Your task to perform on an android device: refresh tabs in the chrome app Image 0: 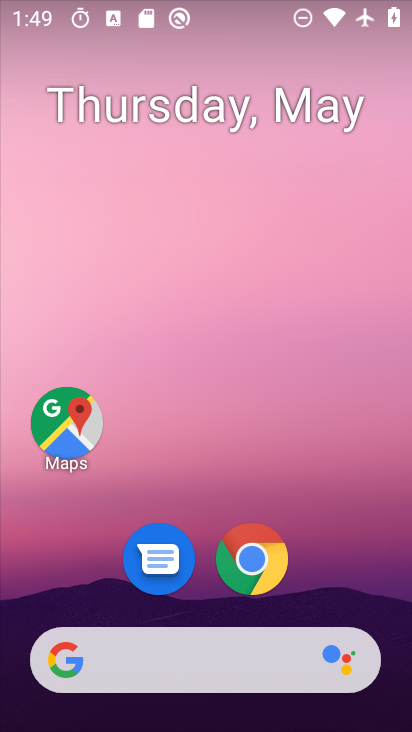
Step 0: drag from (246, 652) to (308, 174)
Your task to perform on an android device: refresh tabs in the chrome app Image 1: 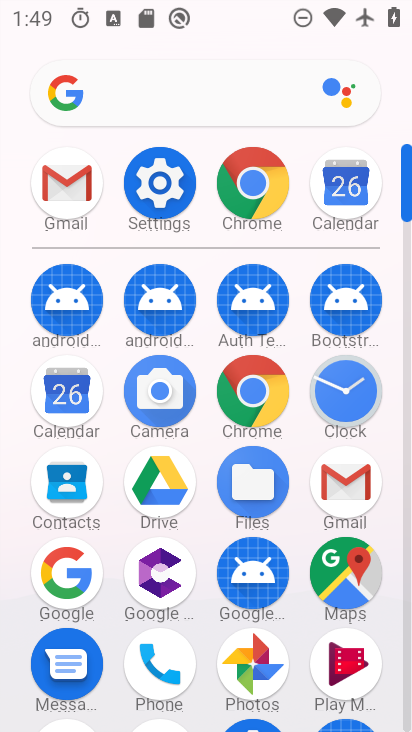
Step 1: drag from (268, 667) to (321, 249)
Your task to perform on an android device: refresh tabs in the chrome app Image 2: 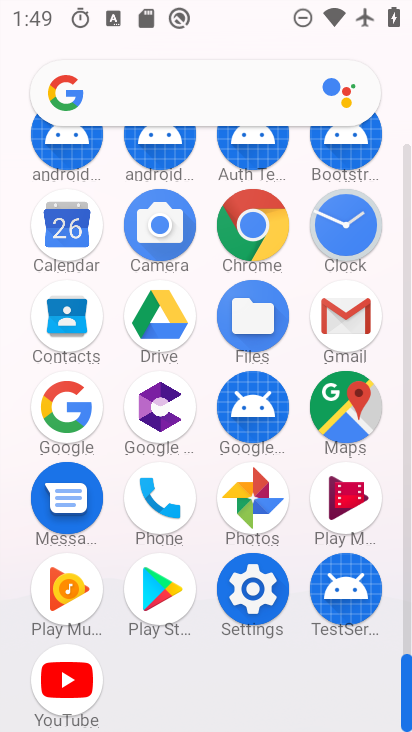
Step 2: click (251, 237)
Your task to perform on an android device: refresh tabs in the chrome app Image 3: 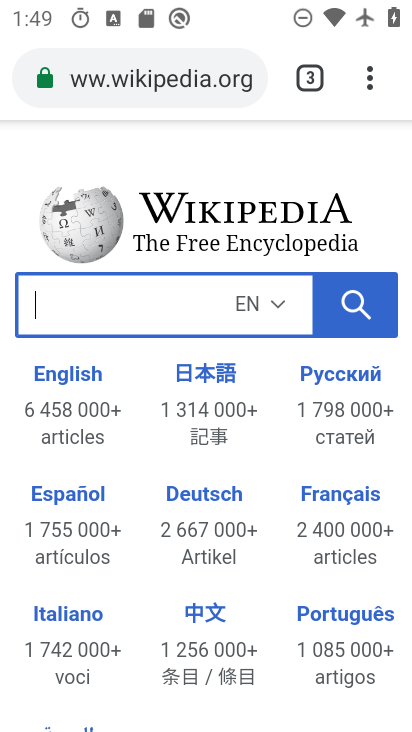
Step 3: click (370, 90)
Your task to perform on an android device: refresh tabs in the chrome app Image 4: 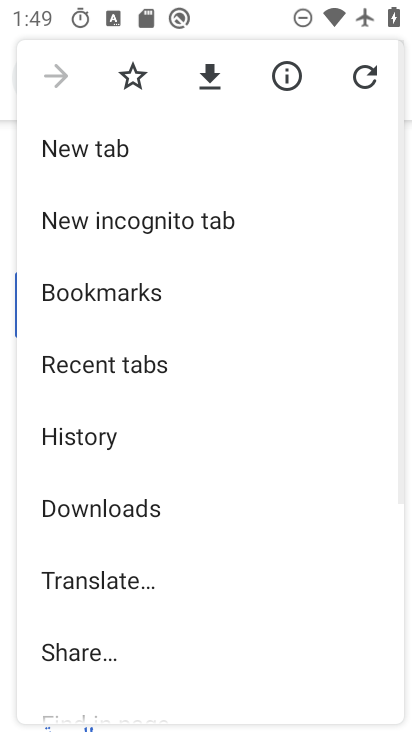
Step 4: drag from (209, 565) to (243, 363)
Your task to perform on an android device: refresh tabs in the chrome app Image 5: 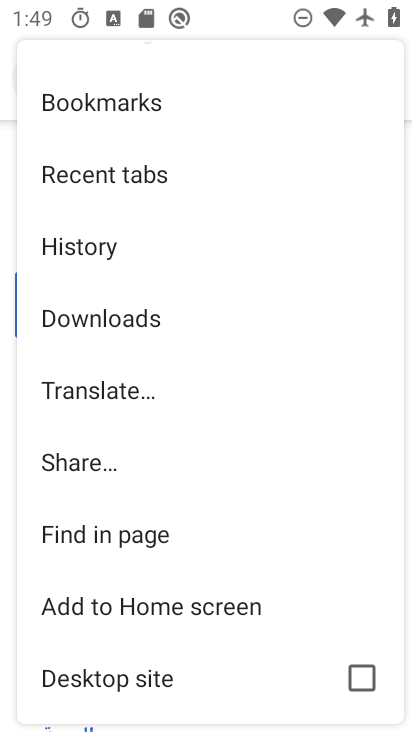
Step 5: drag from (338, 166) to (272, 689)
Your task to perform on an android device: refresh tabs in the chrome app Image 6: 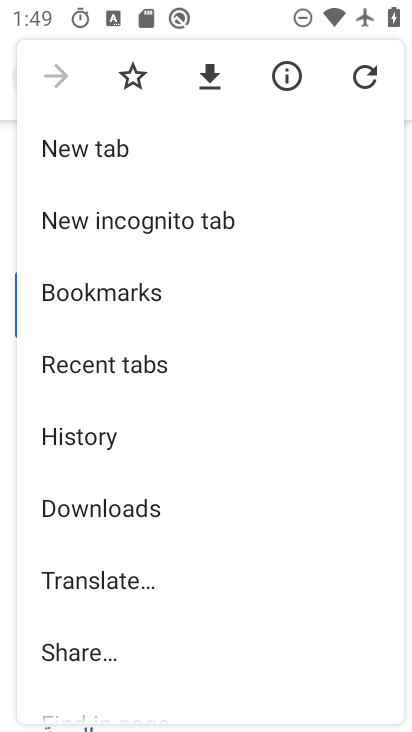
Step 6: click (364, 73)
Your task to perform on an android device: refresh tabs in the chrome app Image 7: 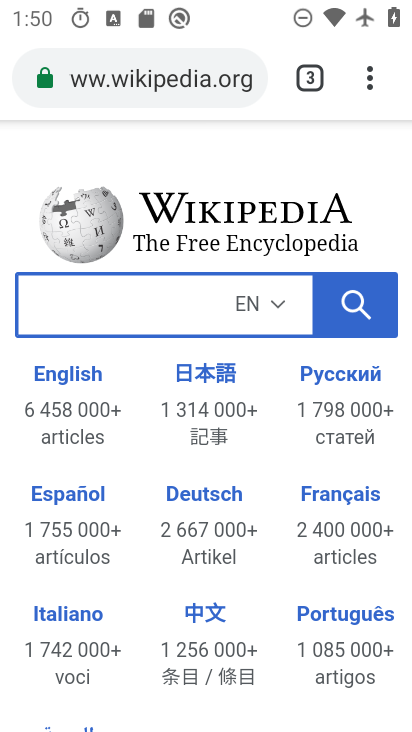
Step 7: task complete